Your task to perform on an android device: toggle data saver in the chrome app Image 0: 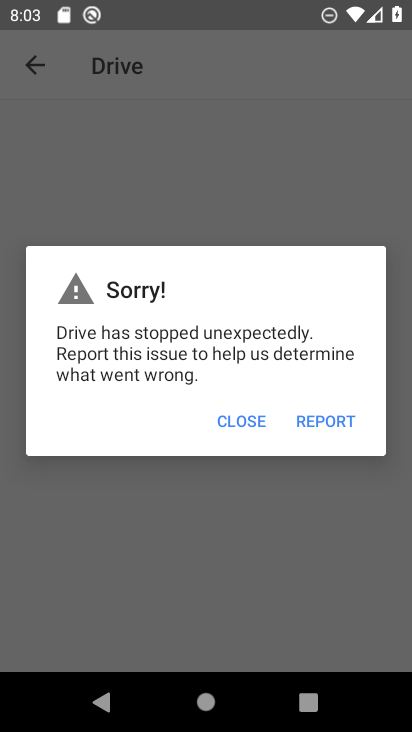
Step 0: press home button
Your task to perform on an android device: toggle data saver in the chrome app Image 1: 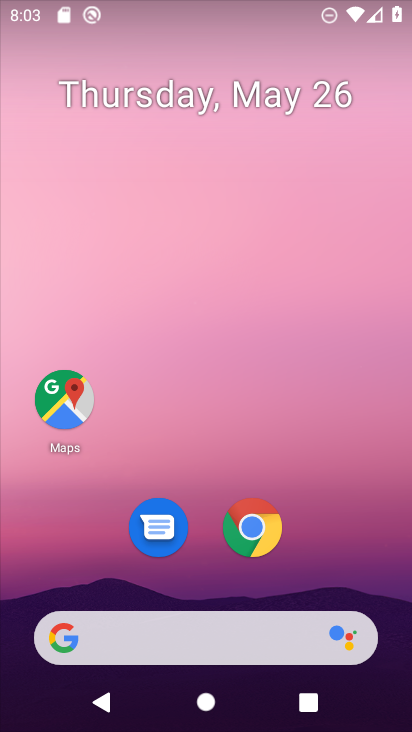
Step 1: click (238, 528)
Your task to perform on an android device: toggle data saver in the chrome app Image 2: 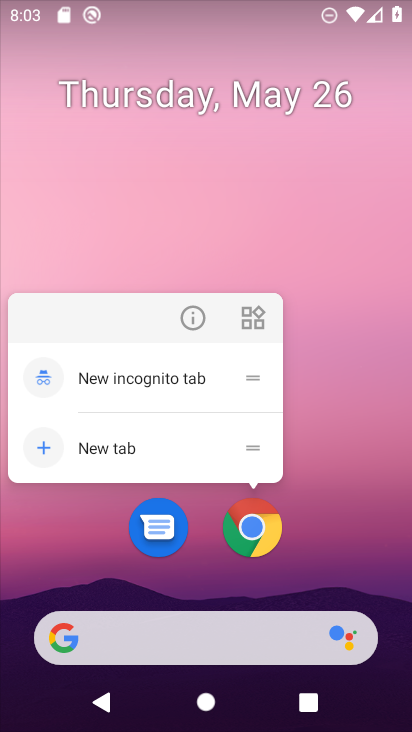
Step 2: click (239, 523)
Your task to perform on an android device: toggle data saver in the chrome app Image 3: 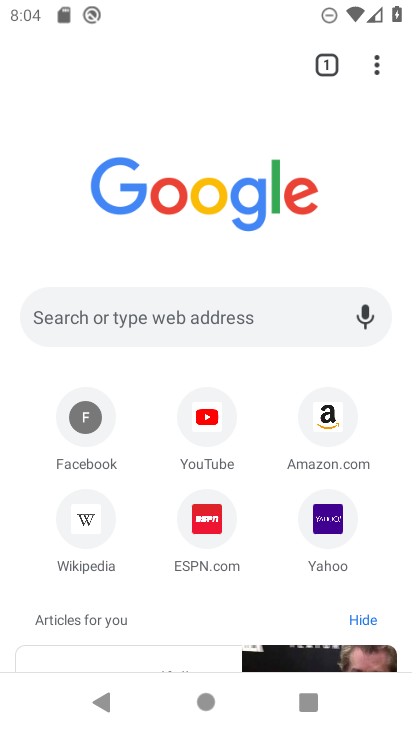
Step 3: press home button
Your task to perform on an android device: toggle data saver in the chrome app Image 4: 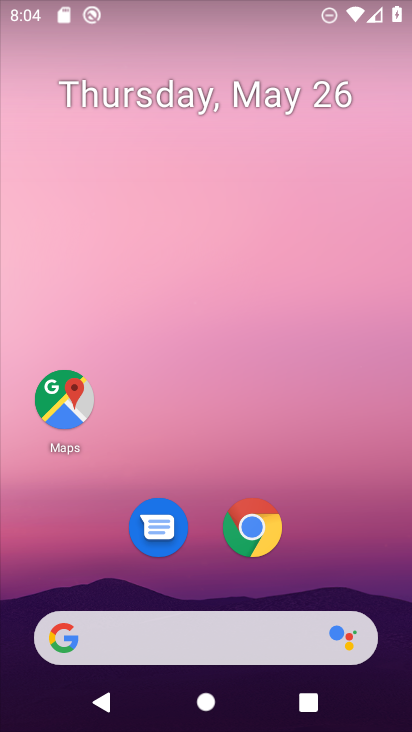
Step 4: click (254, 523)
Your task to perform on an android device: toggle data saver in the chrome app Image 5: 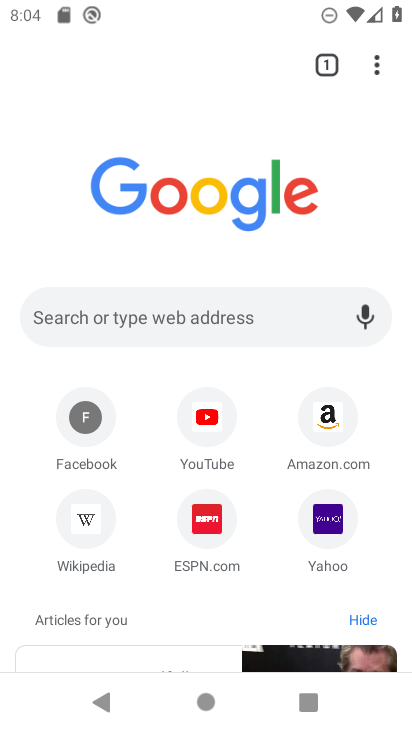
Step 5: click (369, 75)
Your task to perform on an android device: toggle data saver in the chrome app Image 6: 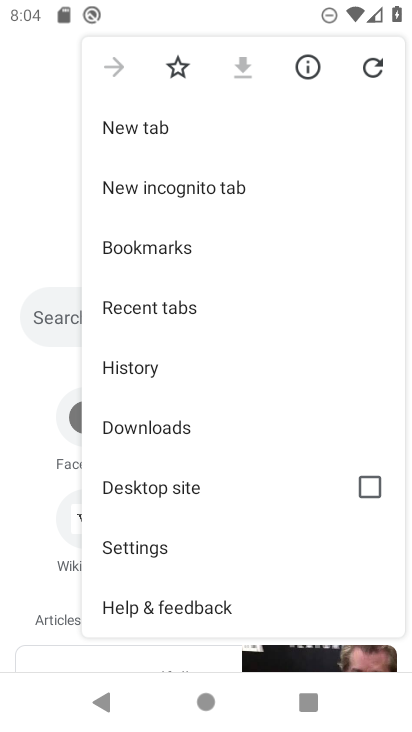
Step 6: click (169, 548)
Your task to perform on an android device: toggle data saver in the chrome app Image 7: 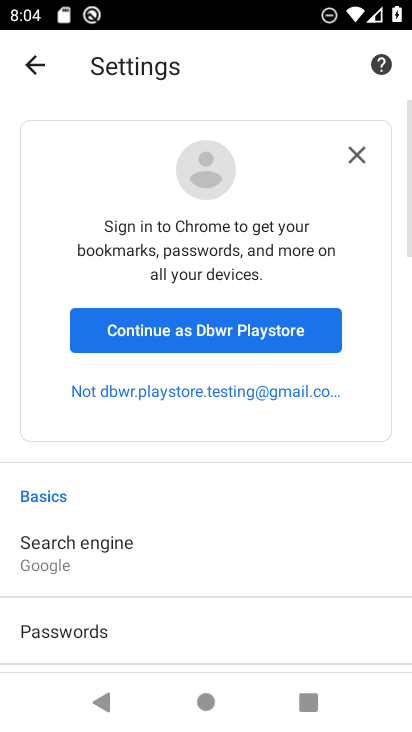
Step 7: drag from (9, 438) to (144, 133)
Your task to perform on an android device: toggle data saver in the chrome app Image 8: 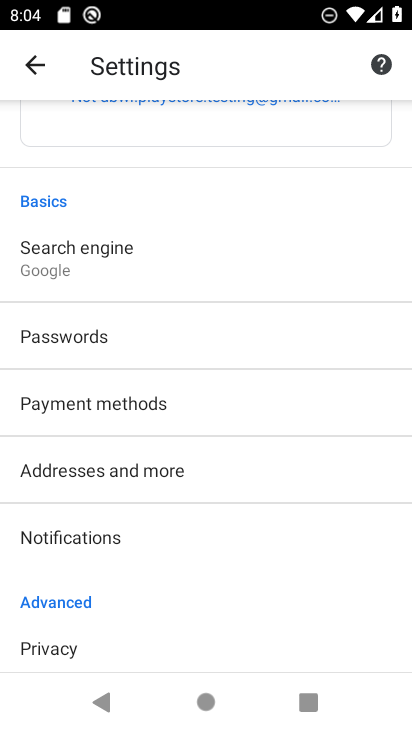
Step 8: drag from (2, 609) to (216, 138)
Your task to perform on an android device: toggle data saver in the chrome app Image 9: 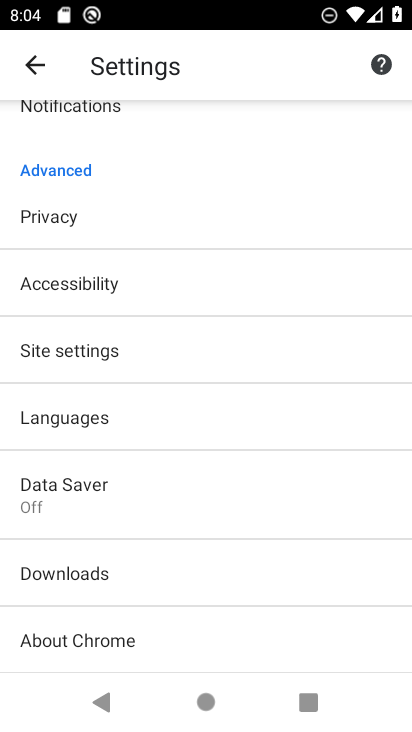
Step 9: click (98, 489)
Your task to perform on an android device: toggle data saver in the chrome app Image 10: 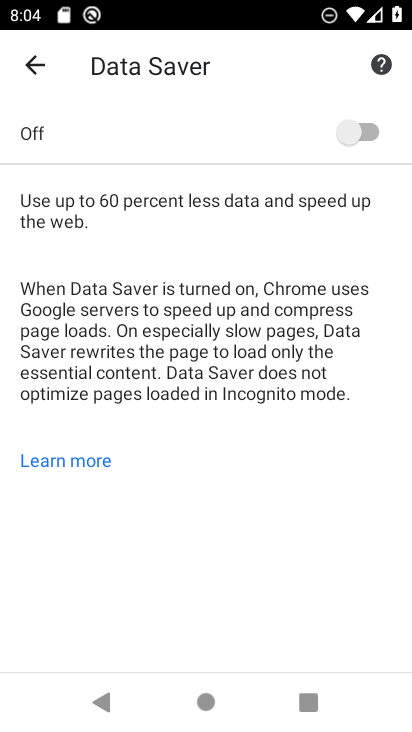
Step 10: click (354, 139)
Your task to perform on an android device: toggle data saver in the chrome app Image 11: 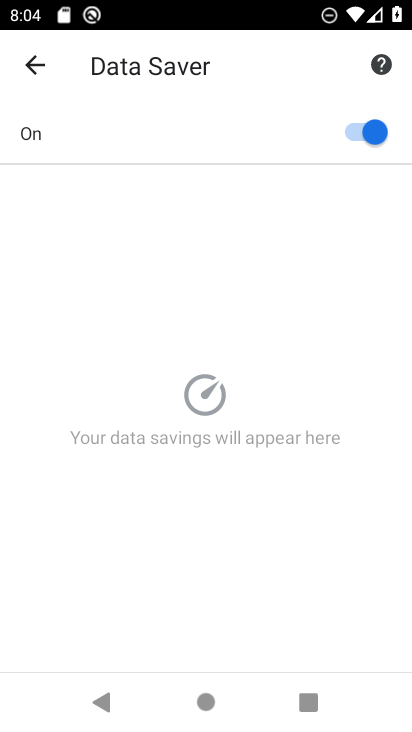
Step 11: task complete